Your task to perform on an android device: turn notification dots on Image 0: 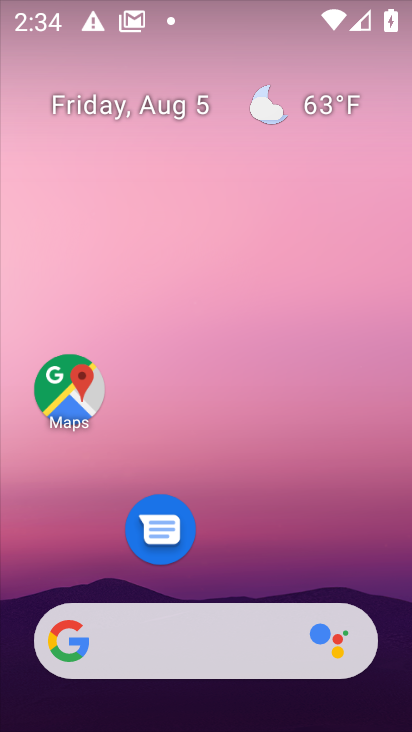
Step 0: drag from (179, 687) to (317, 39)
Your task to perform on an android device: turn notification dots on Image 1: 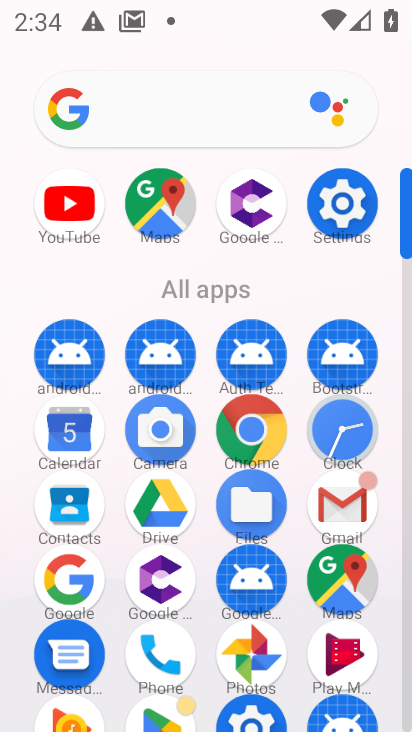
Step 1: click (360, 218)
Your task to perform on an android device: turn notification dots on Image 2: 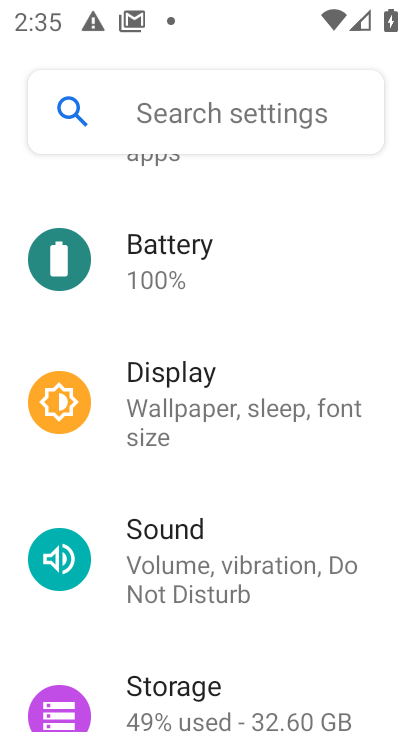
Step 2: drag from (341, 641) to (401, 427)
Your task to perform on an android device: turn notification dots on Image 3: 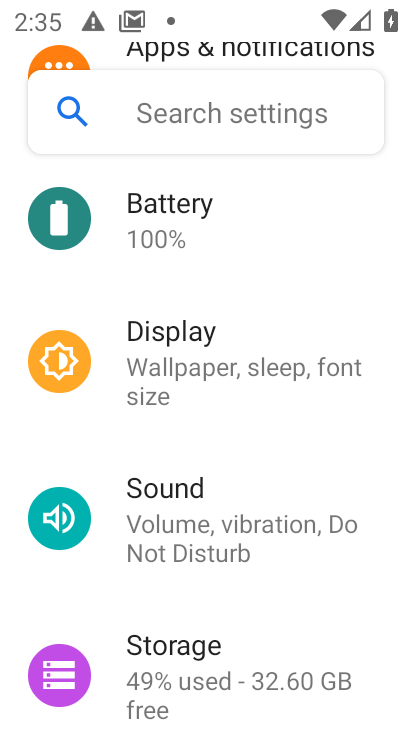
Step 3: drag from (327, 266) to (274, 722)
Your task to perform on an android device: turn notification dots on Image 4: 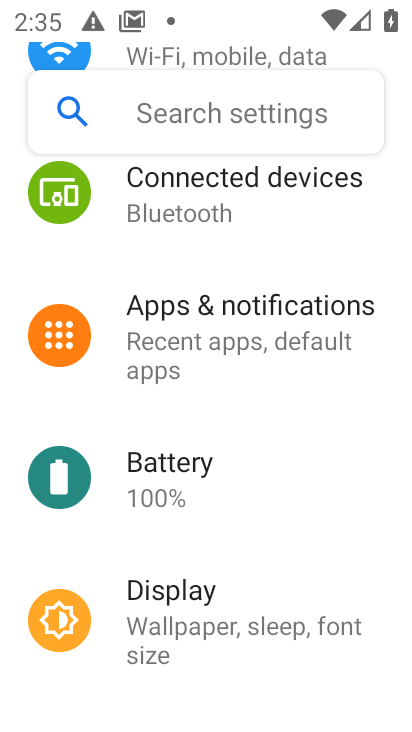
Step 4: click (344, 293)
Your task to perform on an android device: turn notification dots on Image 5: 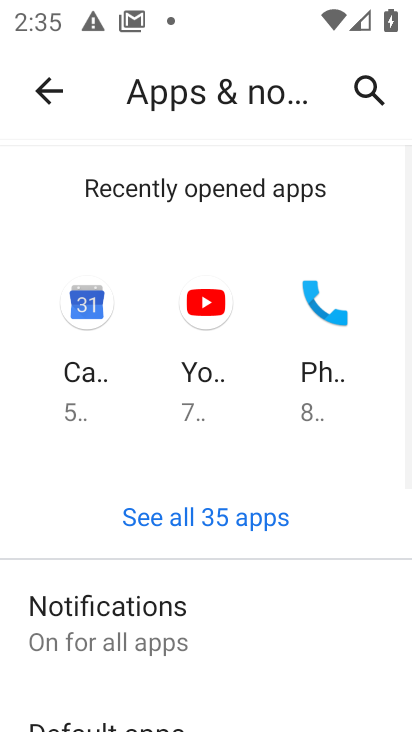
Step 5: click (256, 632)
Your task to perform on an android device: turn notification dots on Image 6: 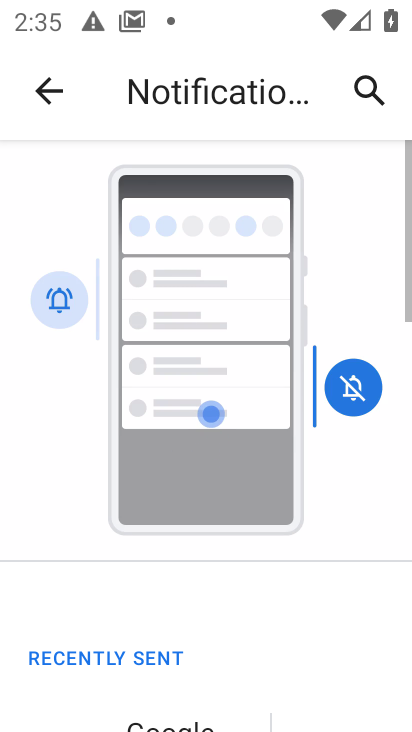
Step 6: drag from (289, 638) to (315, 30)
Your task to perform on an android device: turn notification dots on Image 7: 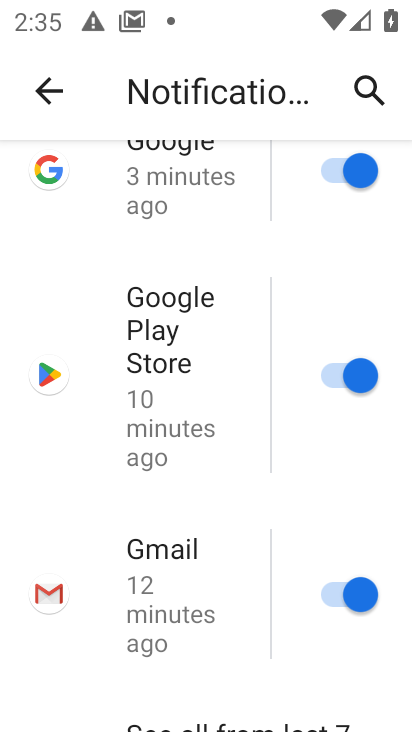
Step 7: drag from (232, 581) to (256, 116)
Your task to perform on an android device: turn notification dots on Image 8: 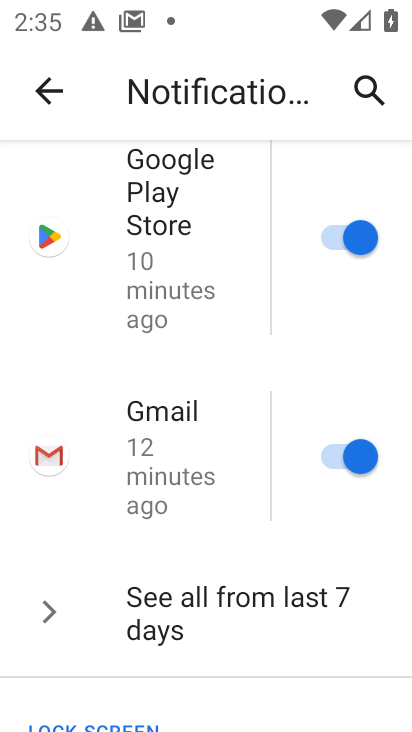
Step 8: drag from (237, 282) to (239, 100)
Your task to perform on an android device: turn notification dots on Image 9: 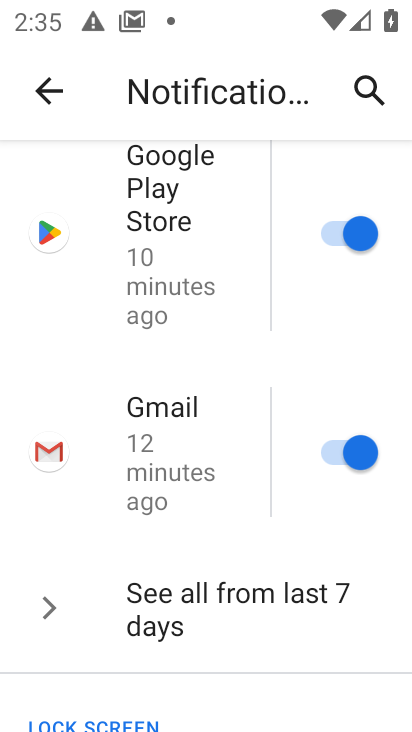
Step 9: drag from (275, 553) to (275, 48)
Your task to perform on an android device: turn notification dots on Image 10: 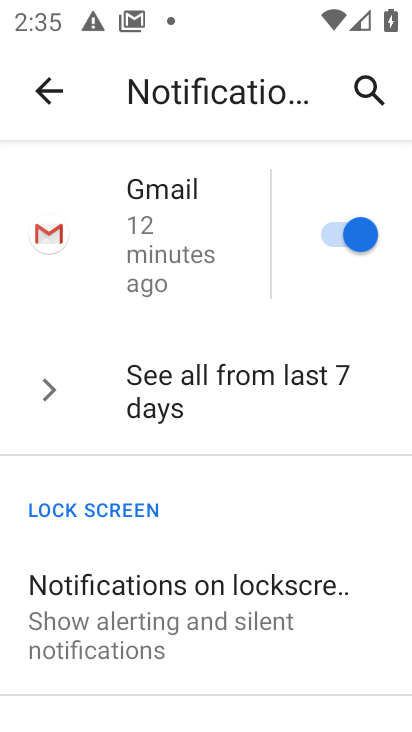
Step 10: drag from (267, 181) to (286, 23)
Your task to perform on an android device: turn notification dots on Image 11: 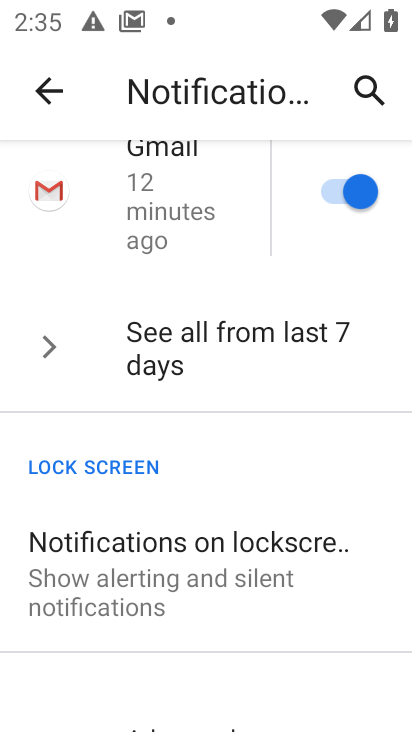
Step 11: drag from (306, 674) to (309, 34)
Your task to perform on an android device: turn notification dots on Image 12: 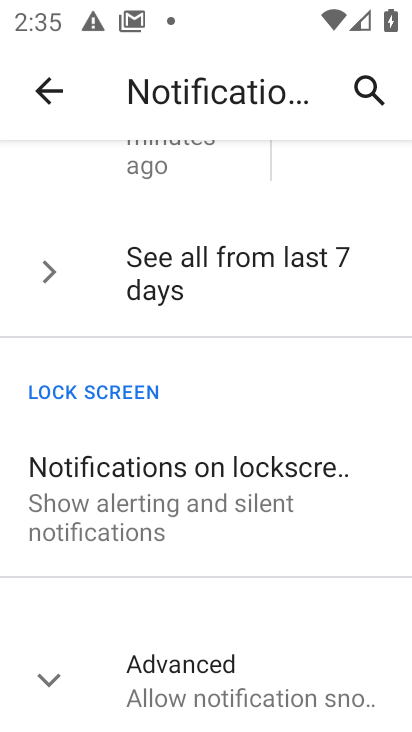
Step 12: click (230, 713)
Your task to perform on an android device: turn notification dots on Image 13: 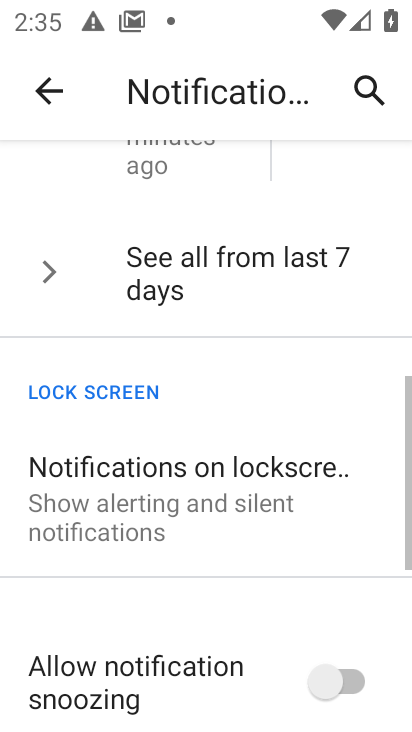
Step 13: task complete